Your task to perform on an android device: turn smart compose on in the gmail app Image 0: 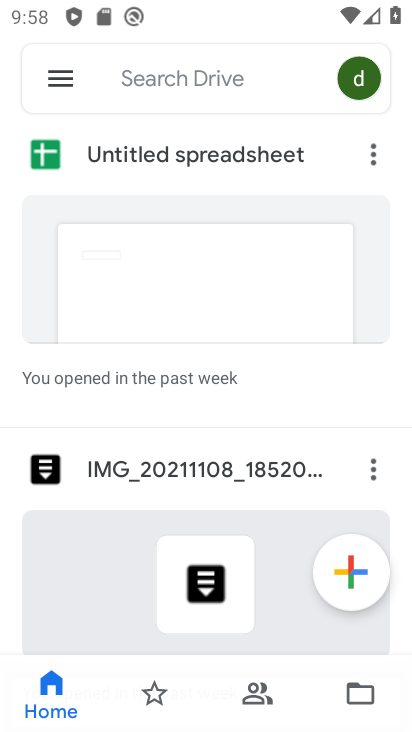
Step 0: press home button
Your task to perform on an android device: turn smart compose on in the gmail app Image 1: 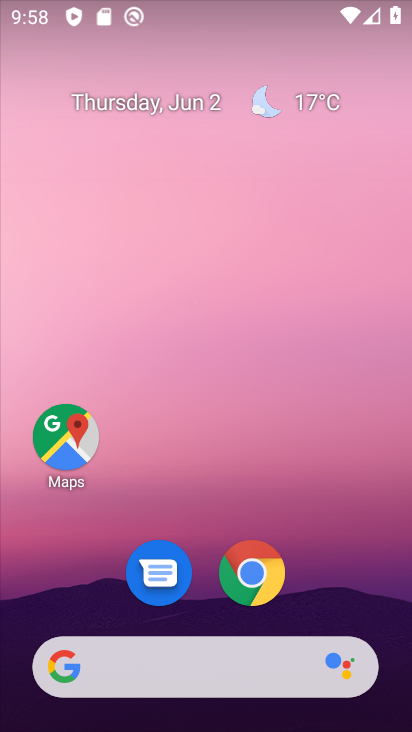
Step 1: drag from (334, 568) to (275, 33)
Your task to perform on an android device: turn smart compose on in the gmail app Image 2: 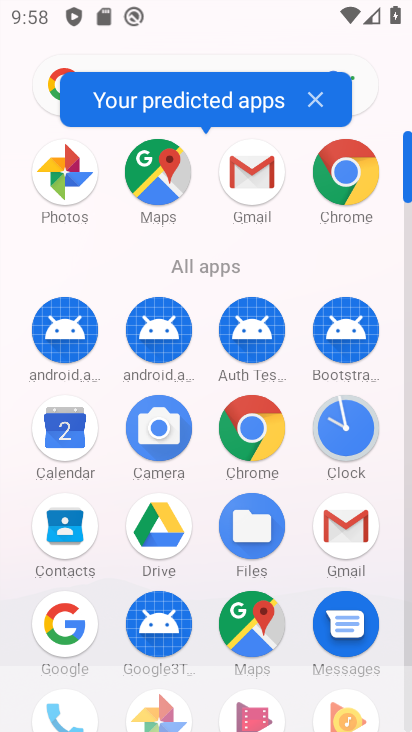
Step 2: click (250, 170)
Your task to perform on an android device: turn smart compose on in the gmail app Image 3: 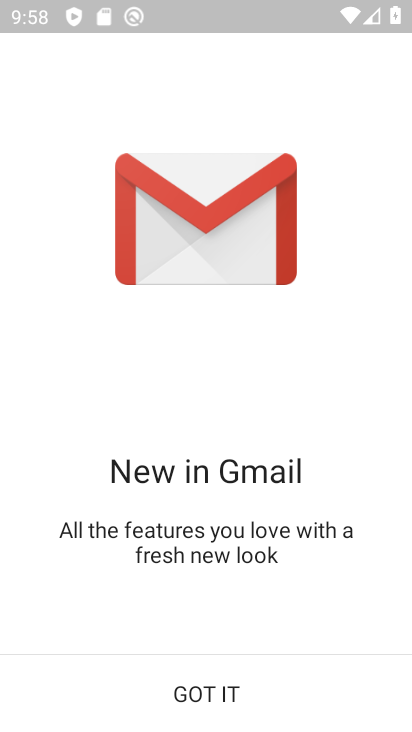
Step 3: click (225, 702)
Your task to perform on an android device: turn smart compose on in the gmail app Image 4: 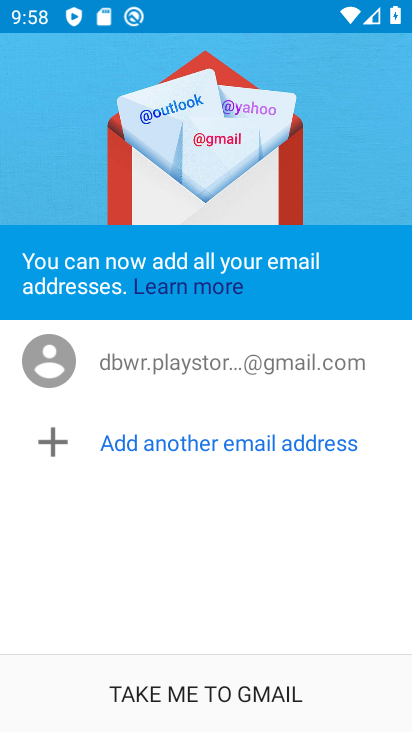
Step 4: click (188, 689)
Your task to perform on an android device: turn smart compose on in the gmail app Image 5: 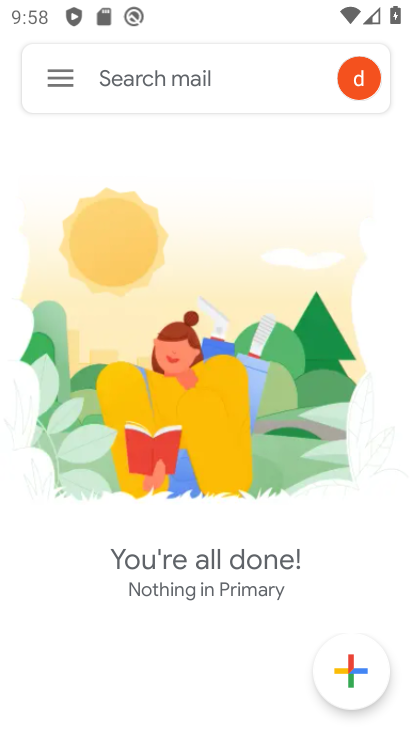
Step 5: click (58, 76)
Your task to perform on an android device: turn smart compose on in the gmail app Image 6: 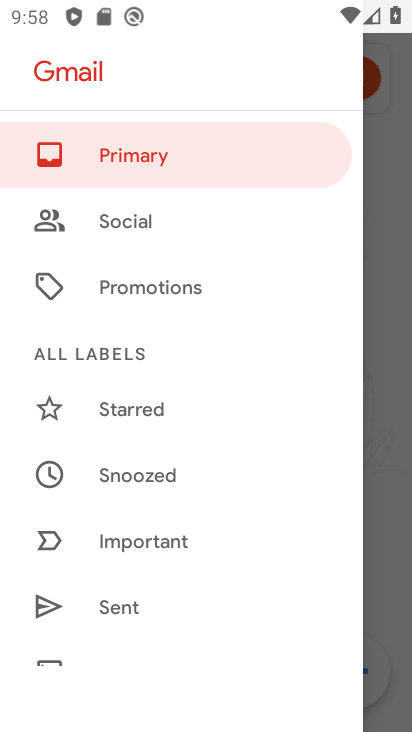
Step 6: drag from (145, 374) to (180, 286)
Your task to perform on an android device: turn smart compose on in the gmail app Image 7: 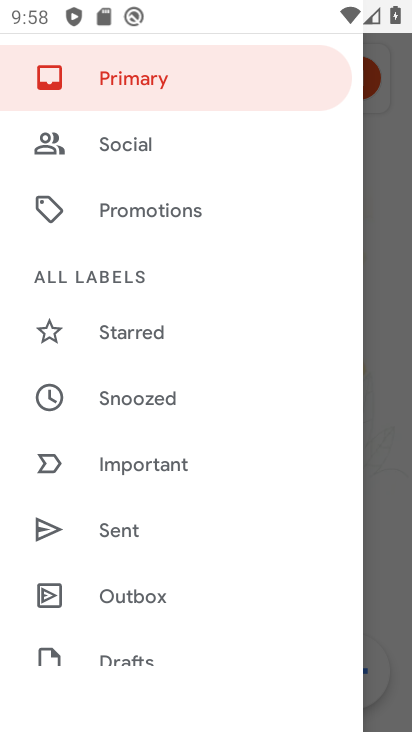
Step 7: drag from (126, 370) to (177, 292)
Your task to perform on an android device: turn smart compose on in the gmail app Image 8: 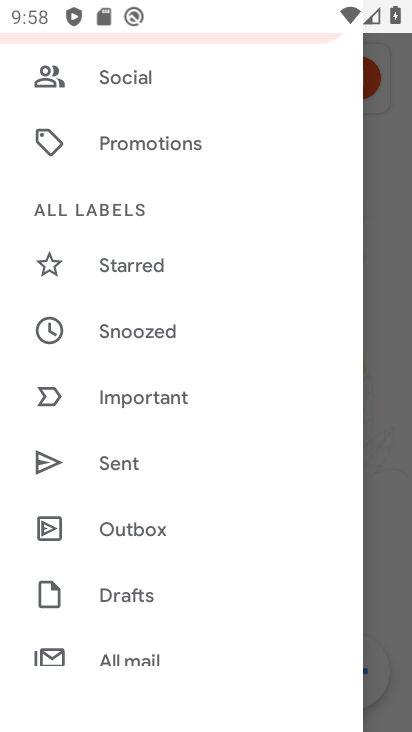
Step 8: drag from (126, 362) to (186, 275)
Your task to perform on an android device: turn smart compose on in the gmail app Image 9: 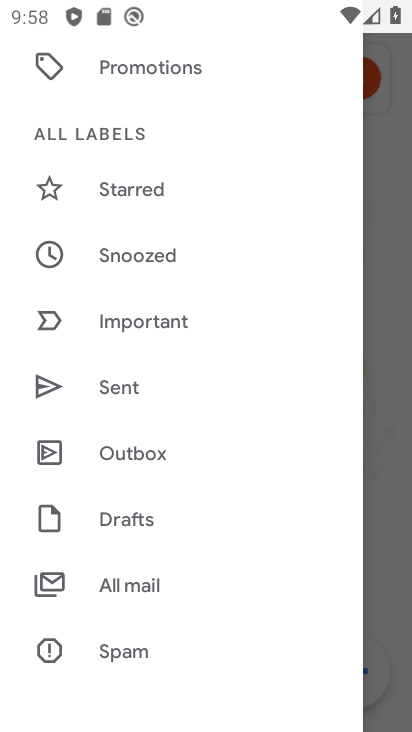
Step 9: drag from (123, 359) to (192, 266)
Your task to perform on an android device: turn smart compose on in the gmail app Image 10: 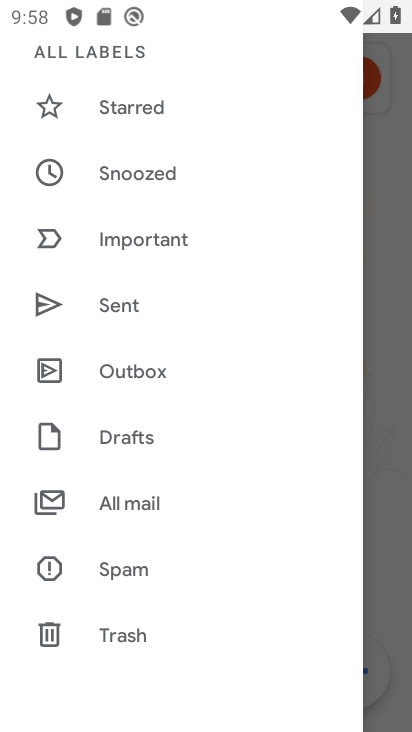
Step 10: drag from (122, 345) to (178, 262)
Your task to perform on an android device: turn smart compose on in the gmail app Image 11: 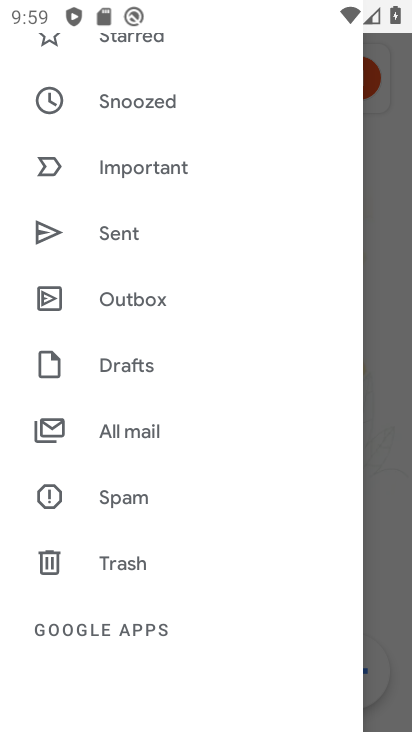
Step 11: drag from (109, 387) to (184, 288)
Your task to perform on an android device: turn smart compose on in the gmail app Image 12: 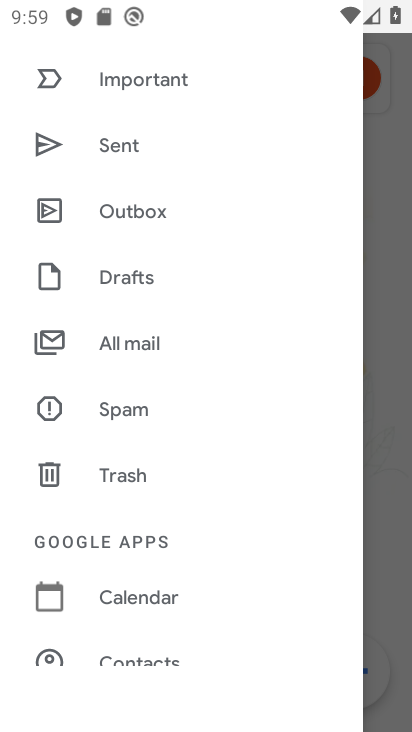
Step 12: drag from (118, 433) to (204, 336)
Your task to perform on an android device: turn smart compose on in the gmail app Image 13: 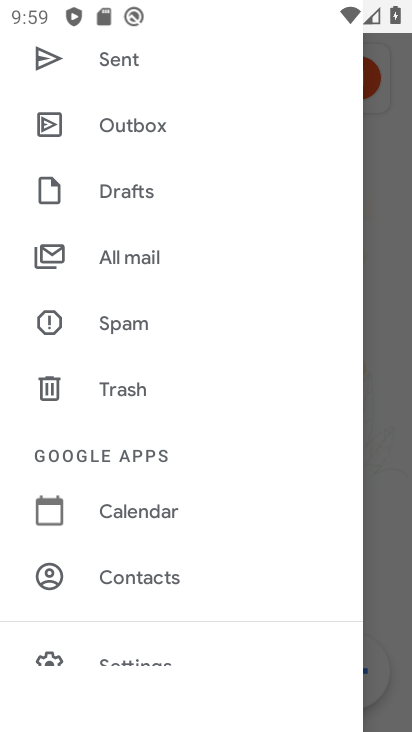
Step 13: drag from (142, 476) to (253, 357)
Your task to perform on an android device: turn smart compose on in the gmail app Image 14: 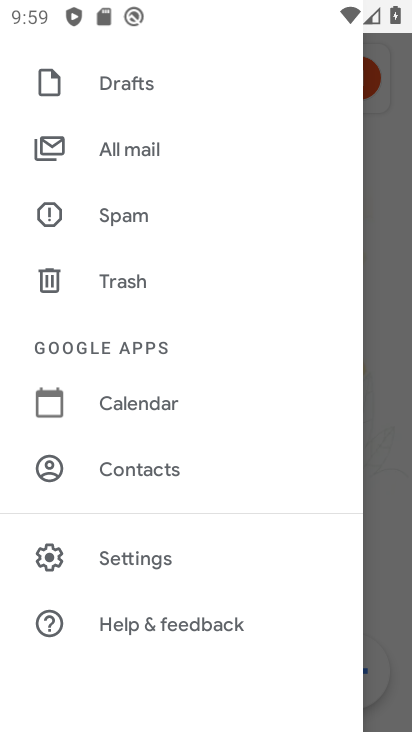
Step 14: click (145, 554)
Your task to perform on an android device: turn smart compose on in the gmail app Image 15: 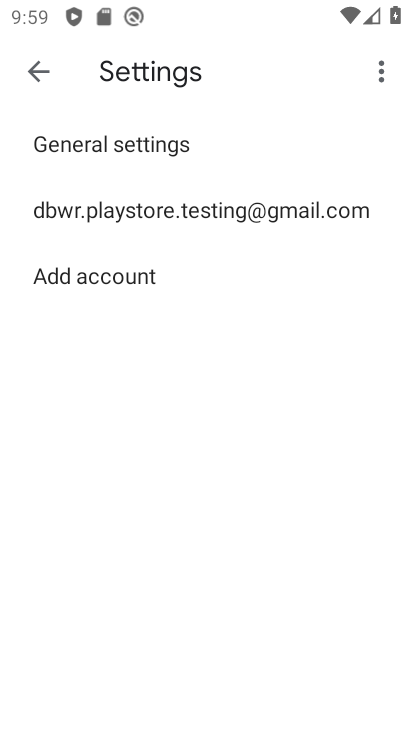
Step 15: click (211, 212)
Your task to perform on an android device: turn smart compose on in the gmail app Image 16: 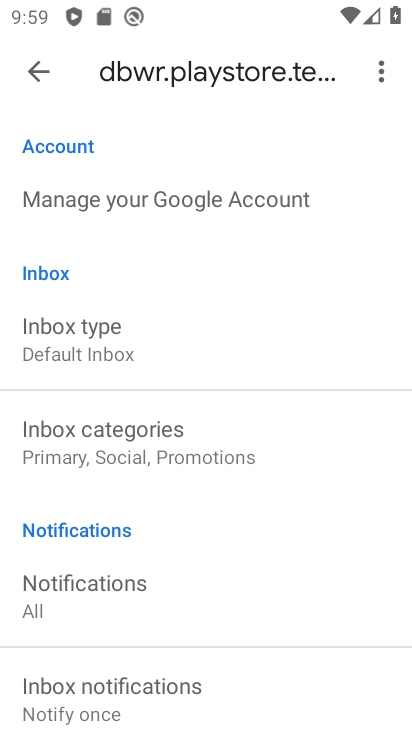
Step 16: task complete